Your task to perform on an android device: choose inbox layout in the gmail app Image 0: 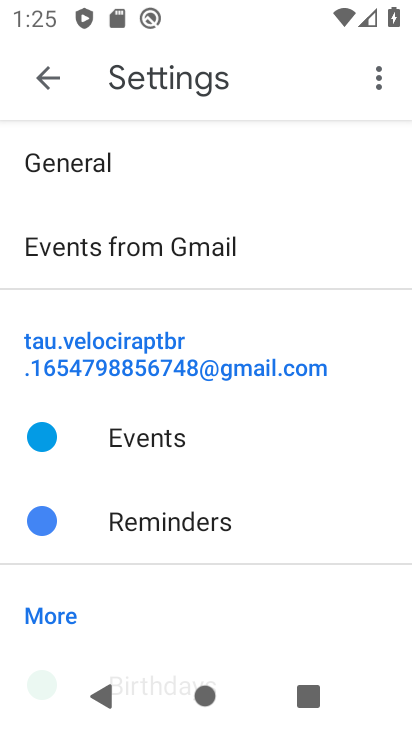
Step 0: press back button
Your task to perform on an android device: choose inbox layout in the gmail app Image 1: 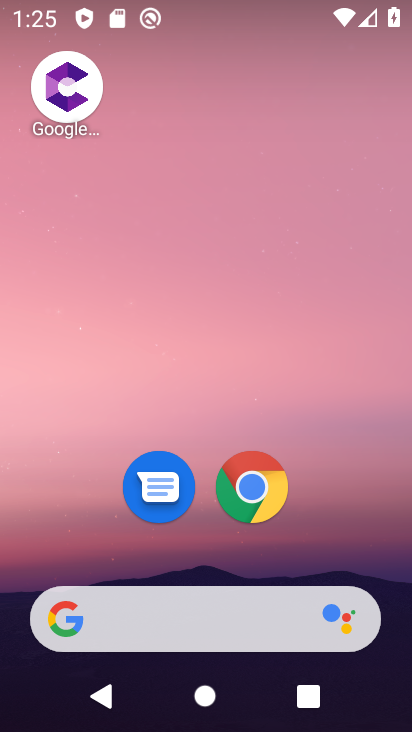
Step 1: drag from (176, 572) to (271, 17)
Your task to perform on an android device: choose inbox layout in the gmail app Image 2: 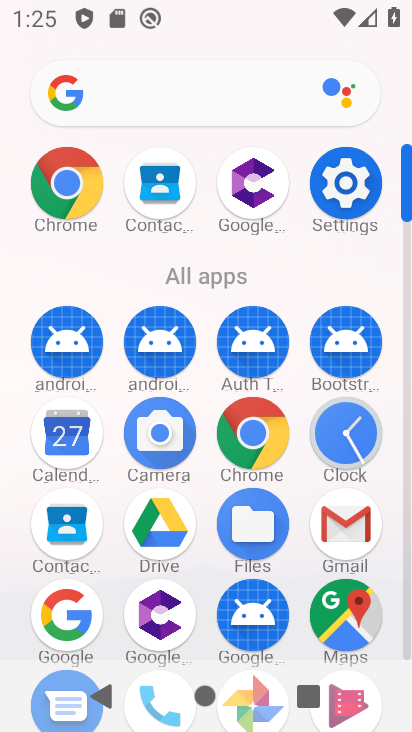
Step 2: click (330, 515)
Your task to perform on an android device: choose inbox layout in the gmail app Image 3: 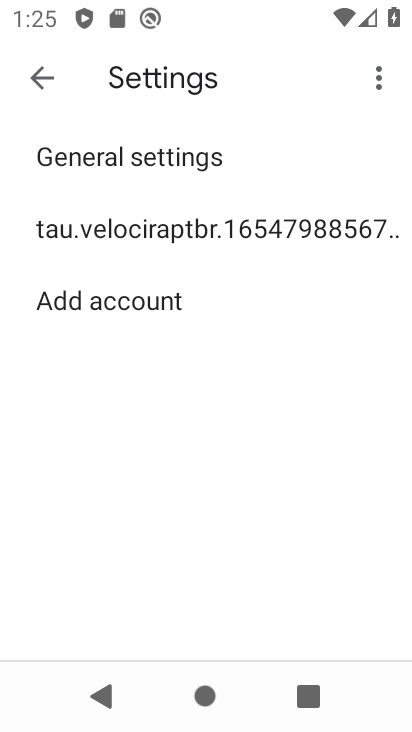
Step 3: click (134, 237)
Your task to perform on an android device: choose inbox layout in the gmail app Image 4: 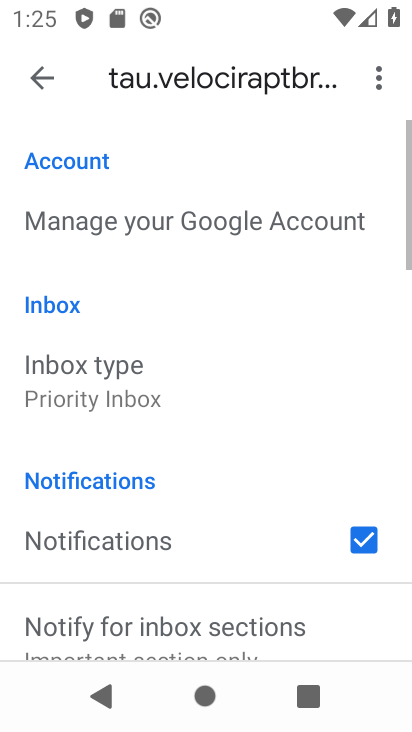
Step 4: click (75, 372)
Your task to perform on an android device: choose inbox layout in the gmail app Image 5: 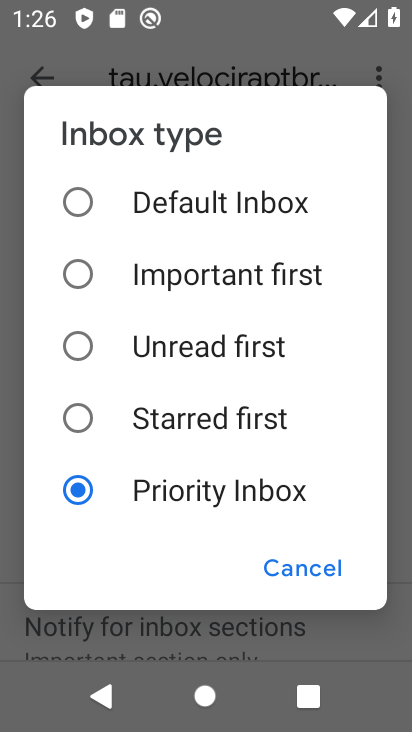
Step 5: click (74, 199)
Your task to perform on an android device: choose inbox layout in the gmail app Image 6: 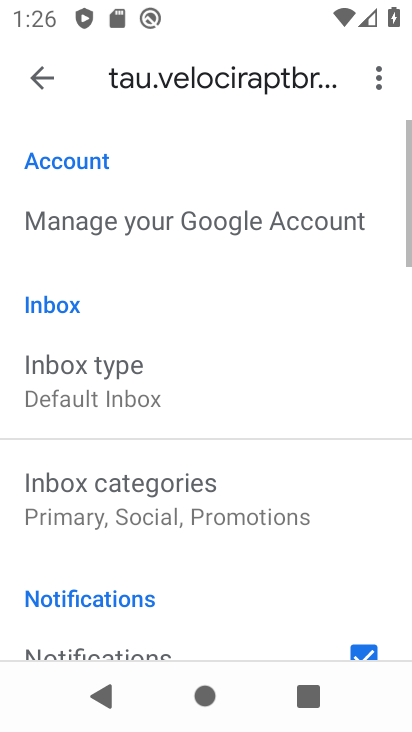
Step 6: task complete